Your task to perform on an android device: show emergency info Image 0: 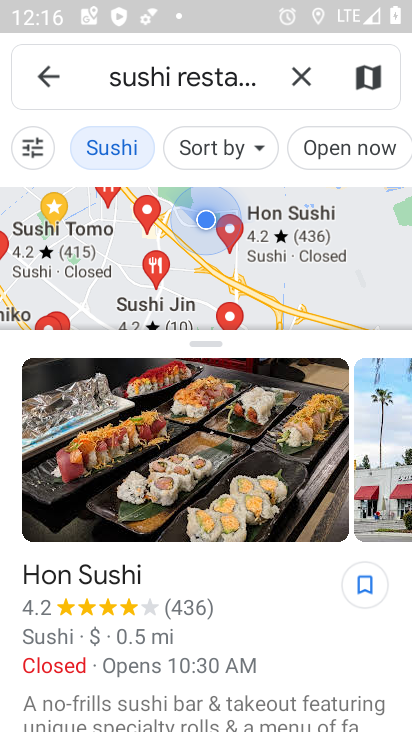
Step 0: press home button
Your task to perform on an android device: show emergency info Image 1: 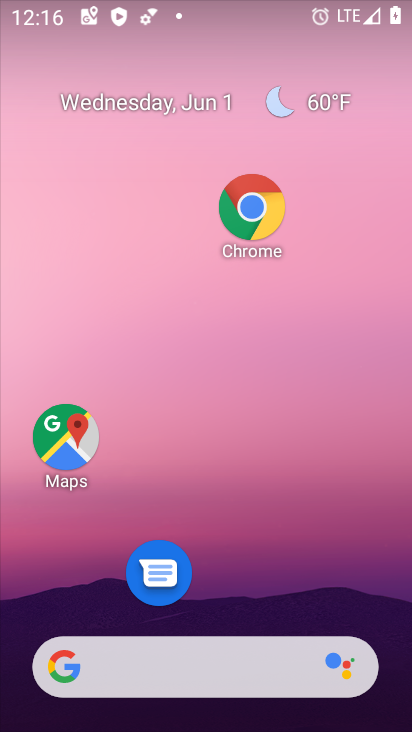
Step 1: drag from (210, 561) to (205, 182)
Your task to perform on an android device: show emergency info Image 2: 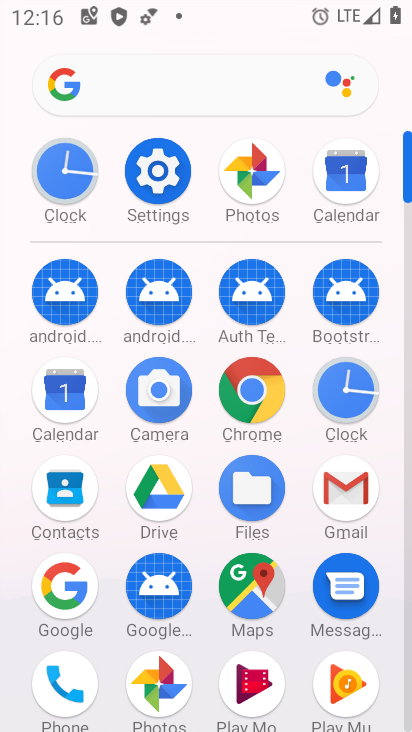
Step 2: click (167, 180)
Your task to perform on an android device: show emergency info Image 3: 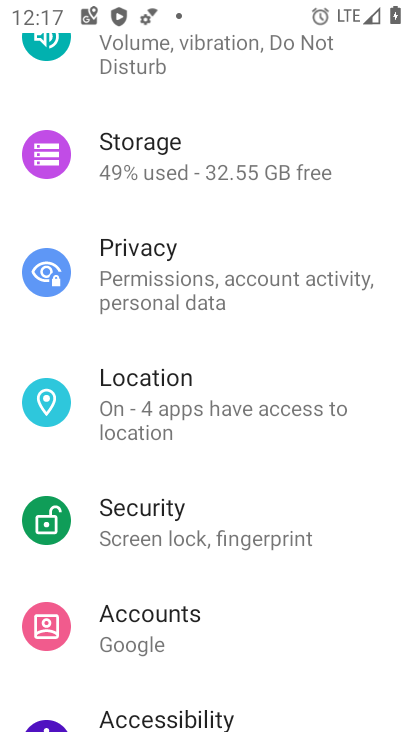
Step 3: drag from (244, 536) to (230, 161)
Your task to perform on an android device: show emergency info Image 4: 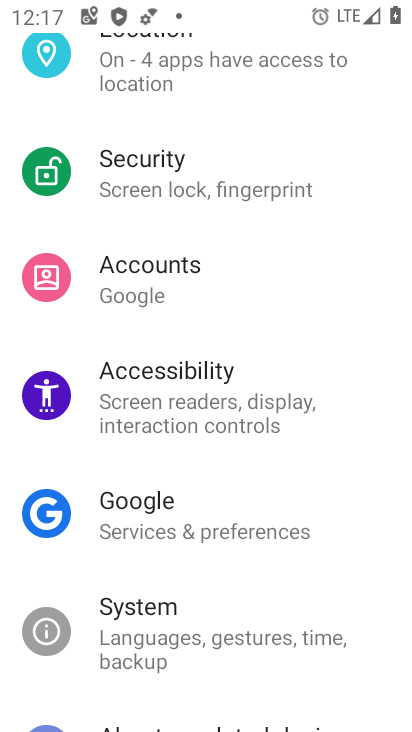
Step 4: drag from (228, 522) to (233, 207)
Your task to perform on an android device: show emergency info Image 5: 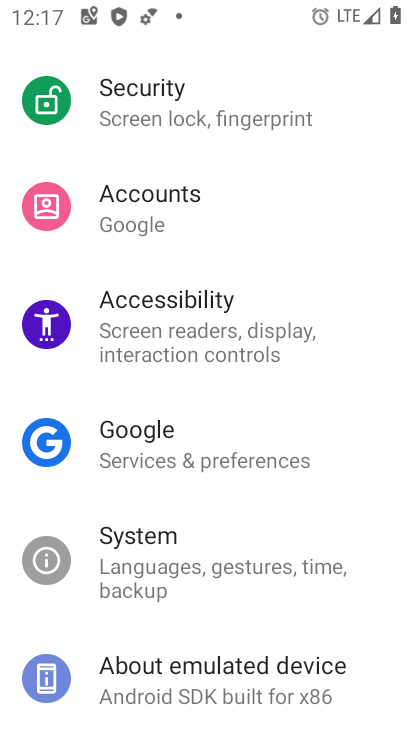
Step 5: drag from (222, 595) to (226, 279)
Your task to perform on an android device: show emergency info Image 6: 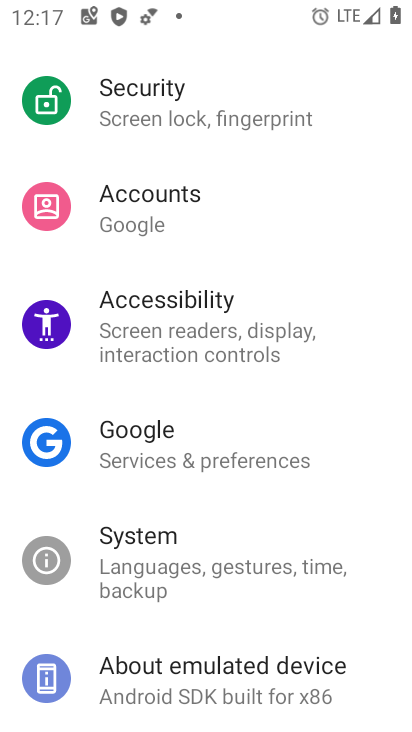
Step 6: click (225, 659)
Your task to perform on an android device: show emergency info Image 7: 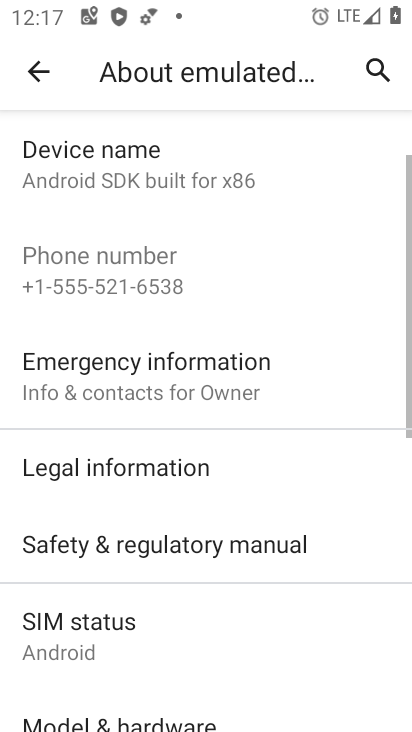
Step 7: click (164, 379)
Your task to perform on an android device: show emergency info Image 8: 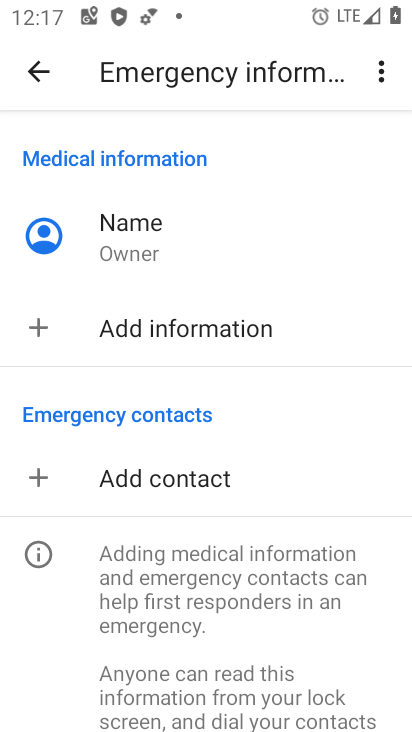
Step 8: task complete